Your task to perform on an android device: When is my next meeting? Image 0: 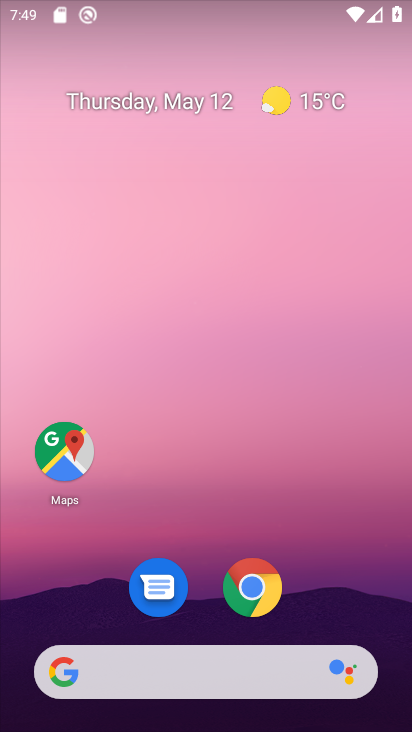
Step 0: drag from (373, 571) to (337, 233)
Your task to perform on an android device: When is my next meeting? Image 1: 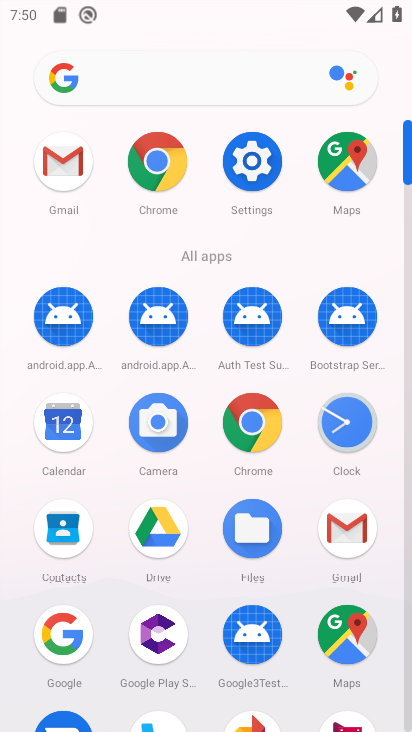
Step 1: click (70, 421)
Your task to perform on an android device: When is my next meeting? Image 2: 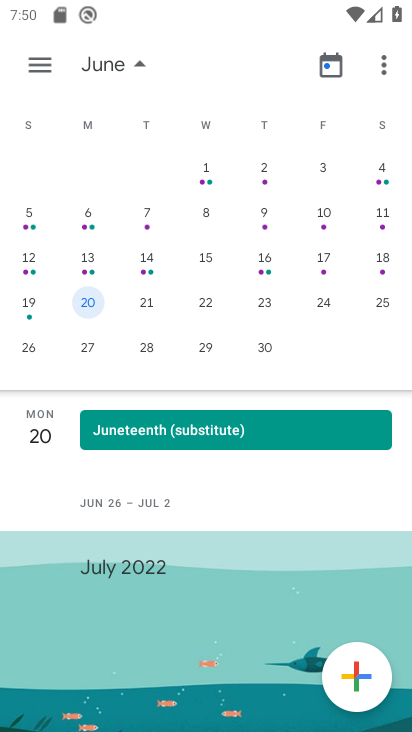
Step 2: task complete